Your task to perform on an android device: Open Yahoo.com Image 0: 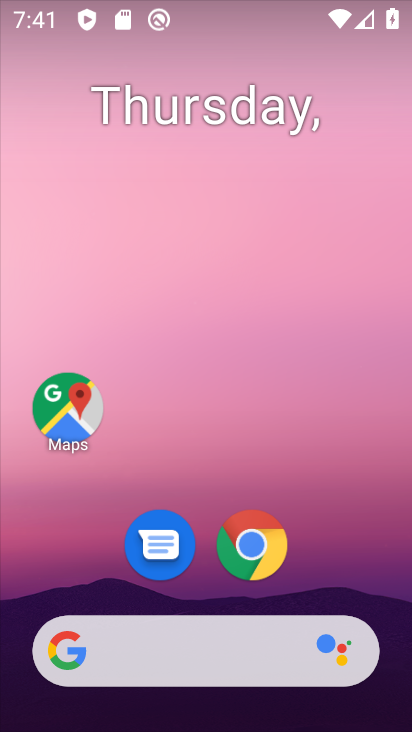
Step 0: drag from (227, 593) to (339, 142)
Your task to perform on an android device: Open Yahoo.com Image 1: 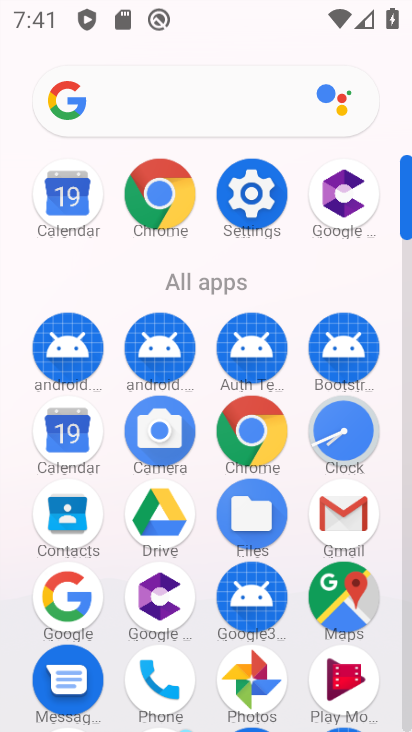
Step 1: click (225, 111)
Your task to perform on an android device: Open Yahoo.com Image 2: 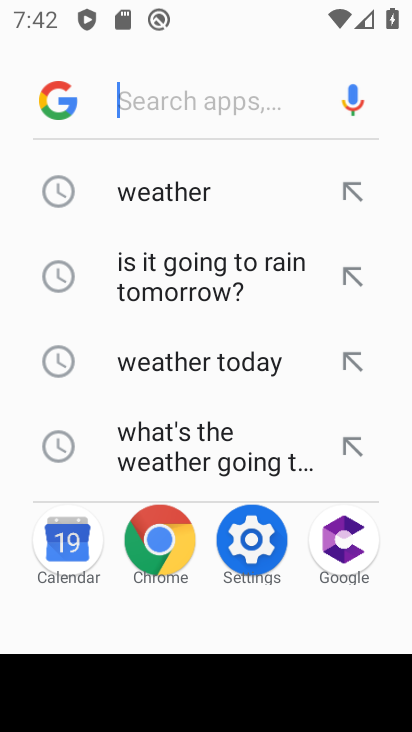
Step 2: type "yahoo"
Your task to perform on an android device: Open Yahoo.com Image 3: 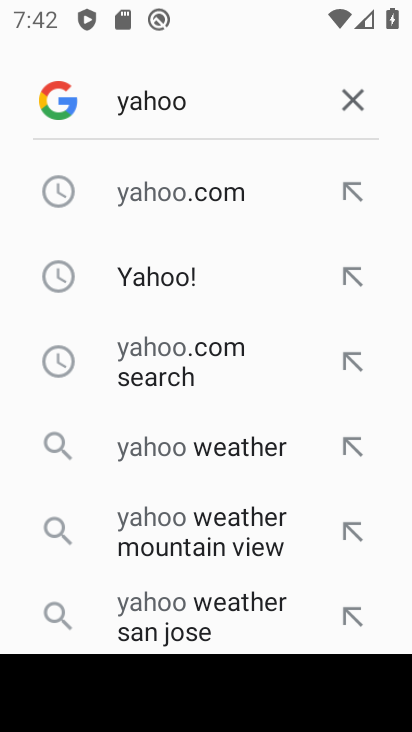
Step 3: click (231, 201)
Your task to perform on an android device: Open Yahoo.com Image 4: 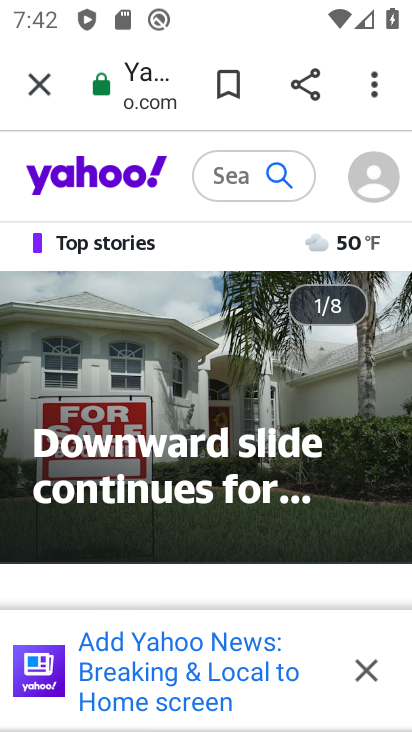
Step 4: task complete